Your task to perform on an android device: Go to calendar. Show me events next week Image 0: 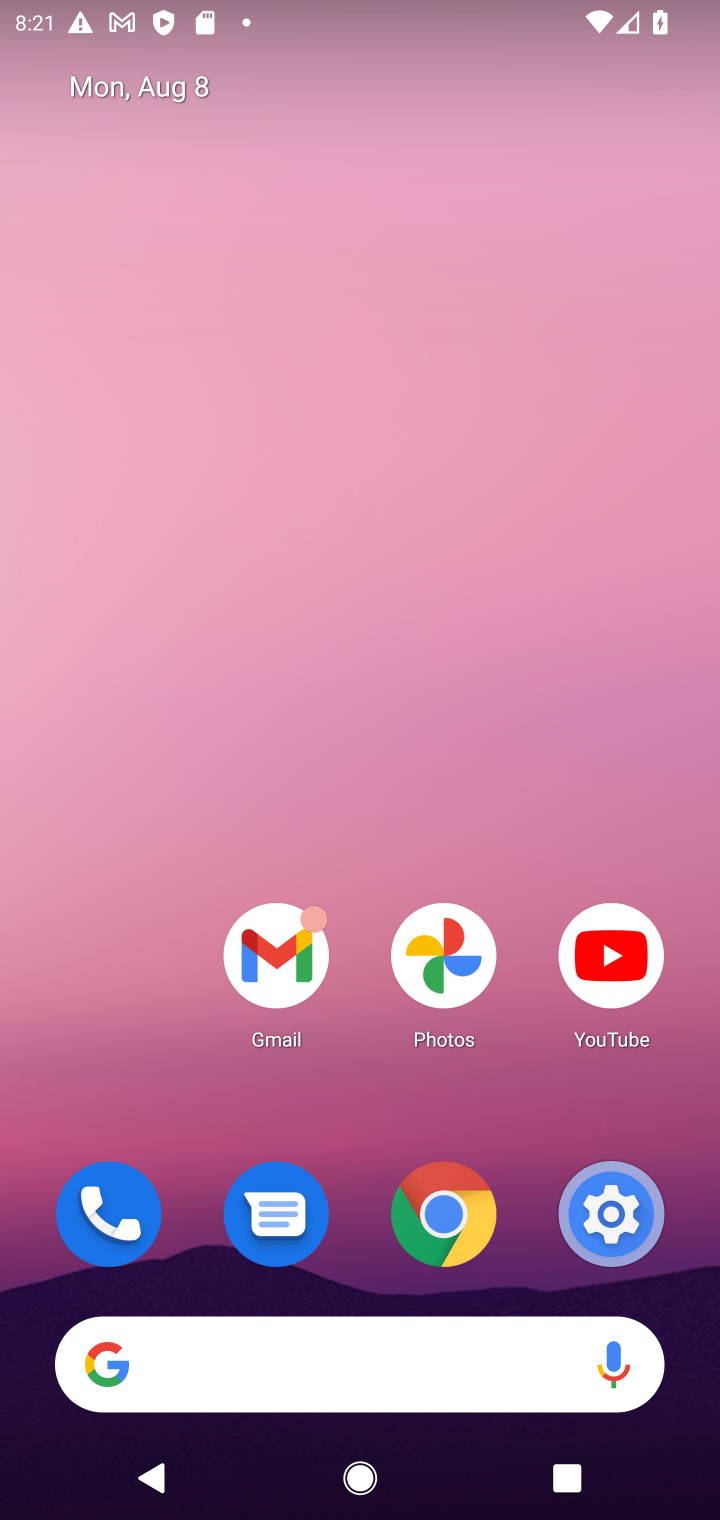
Step 0: drag from (161, 1112) to (173, 466)
Your task to perform on an android device: Go to calendar. Show me events next week Image 1: 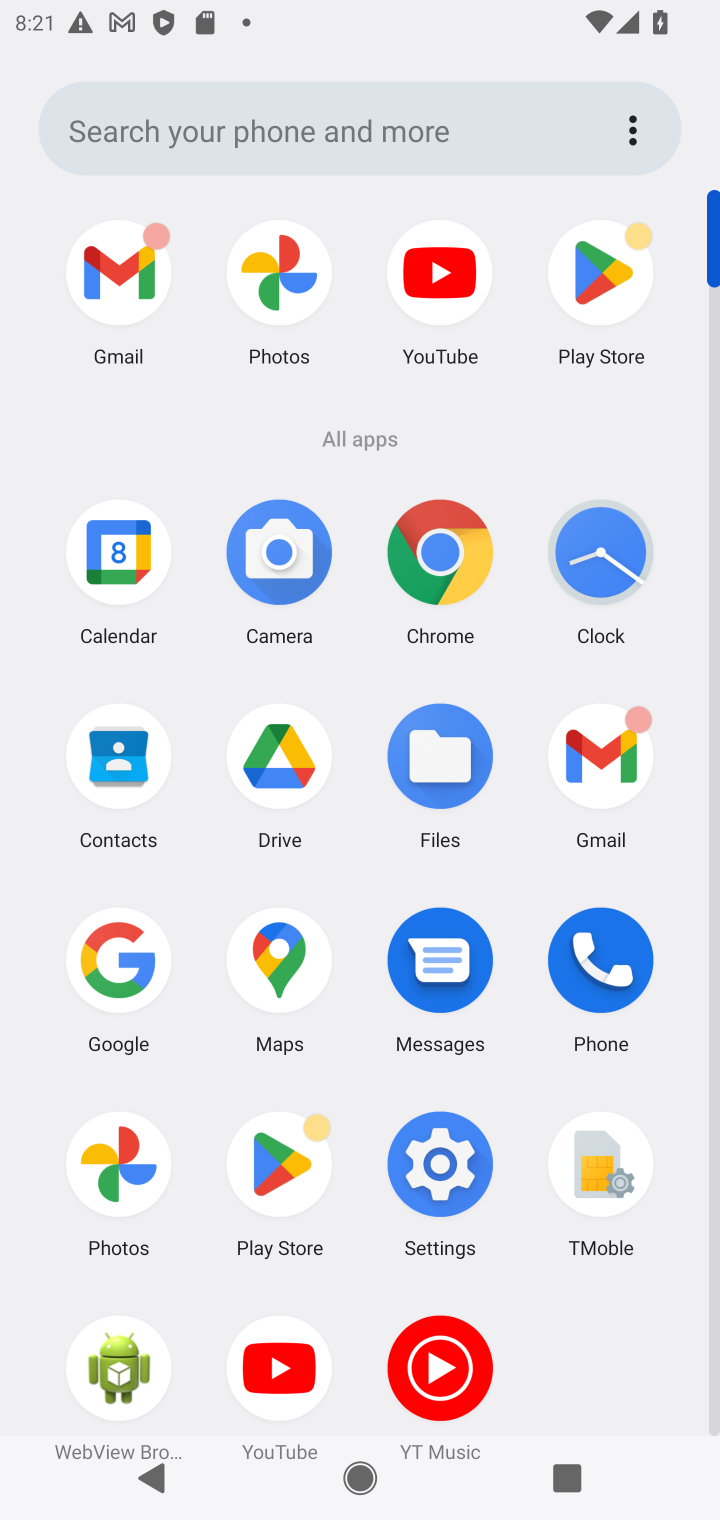
Step 1: click (122, 547)
Your task to perform on an android device: Go to calendar. Show me events next week Image 2: 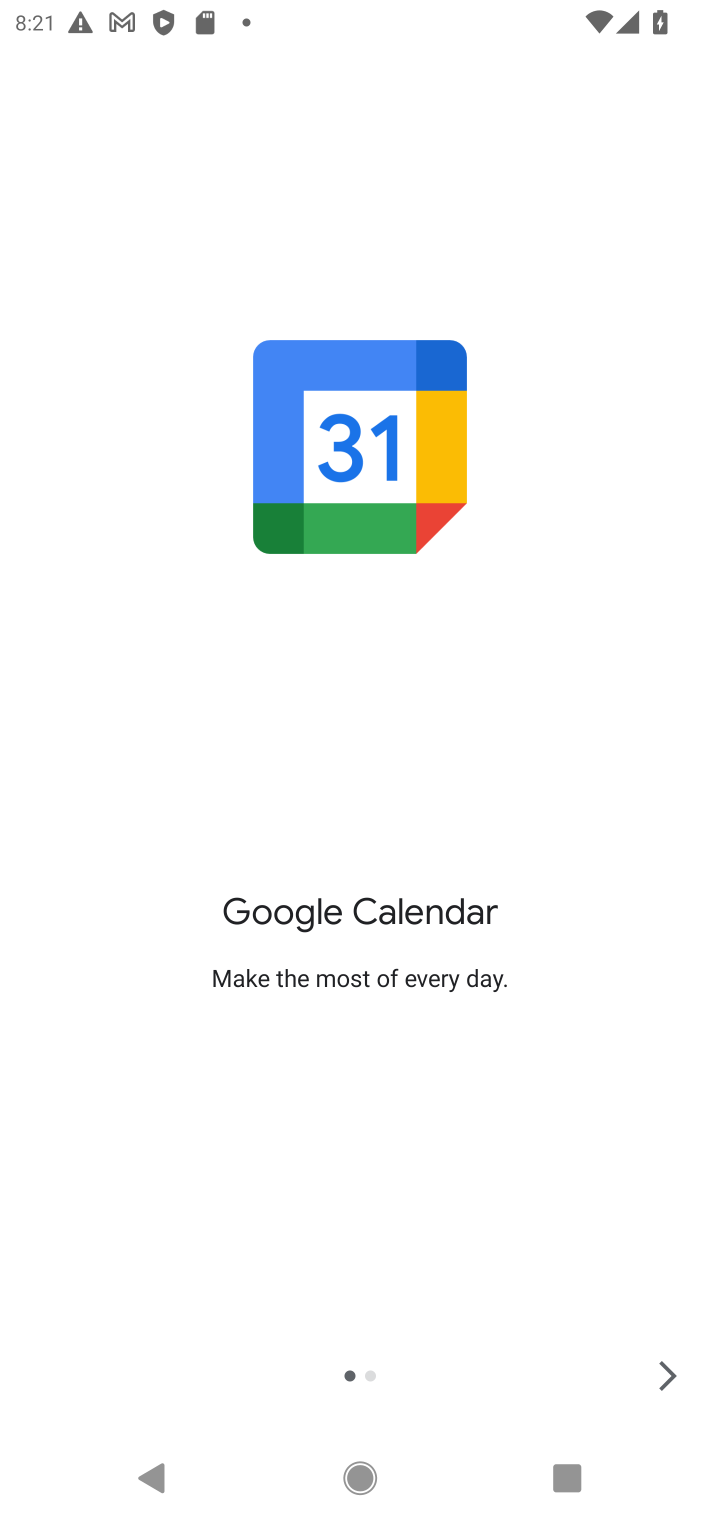
Step 2: click (673, 1382)
Your task to perform on an android device: Go to calendar. Show me events next week Image 3: 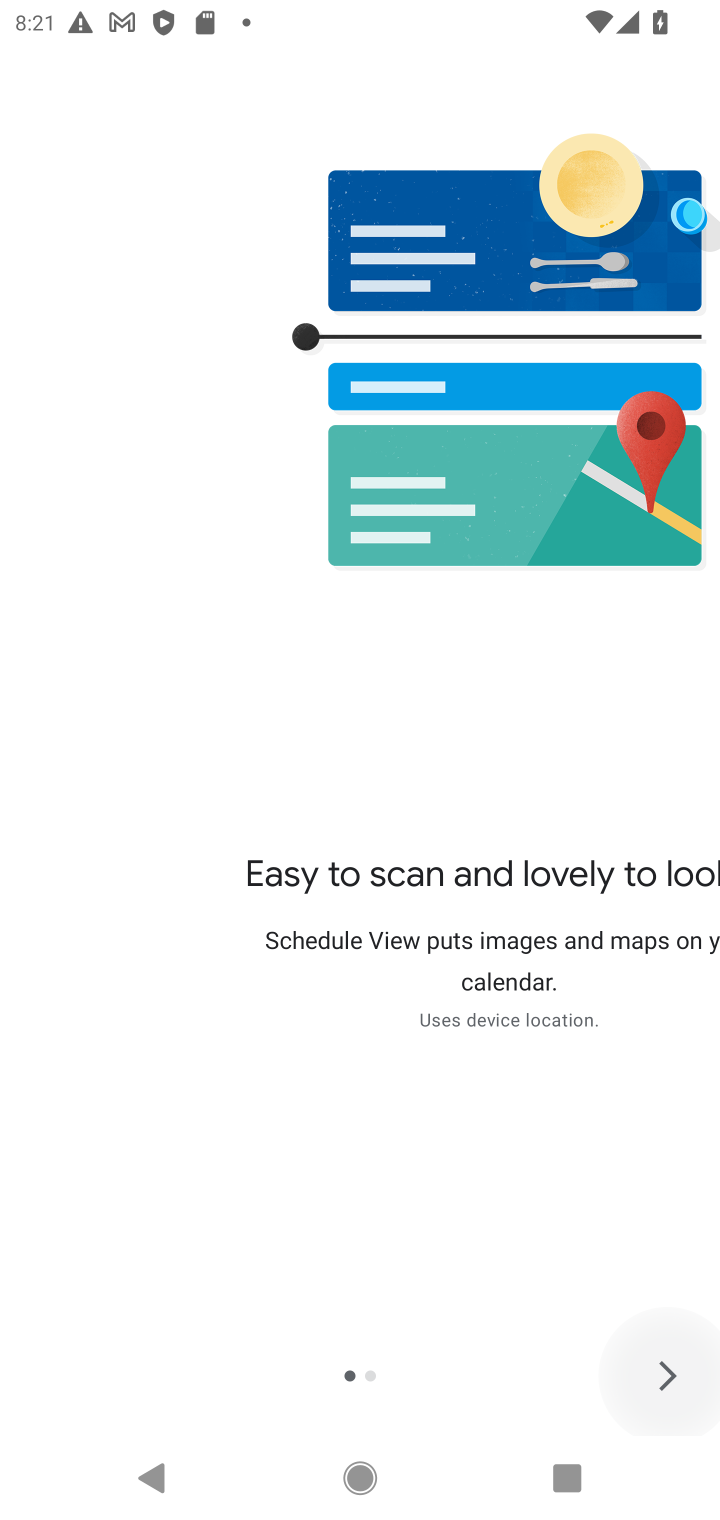
Step 3: click (673, 1382)
Your task to perform on an android device: Go to calendar. Show me events next week Image 4: 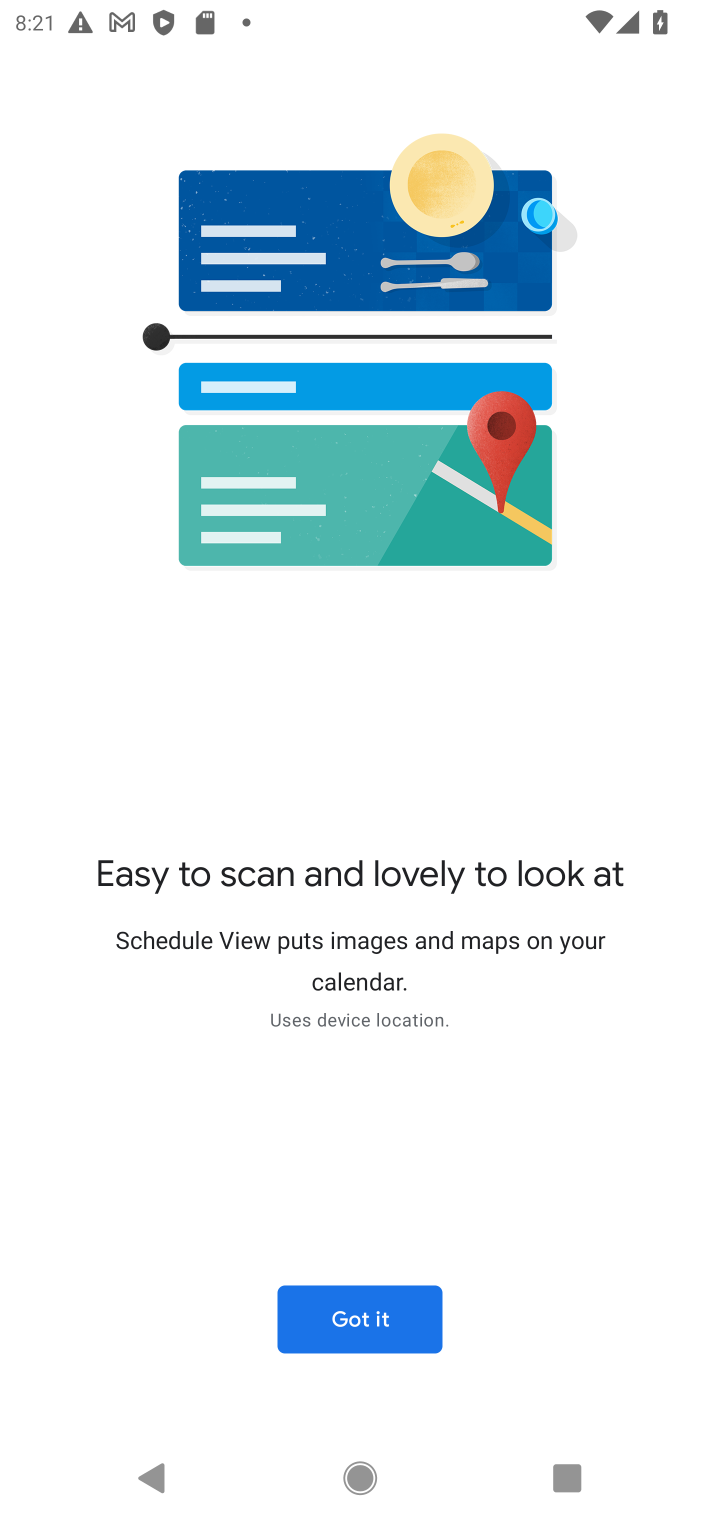
Step 4: click (323, 1319)
Your task to perform on an android device: Go to calendar. Show me events next week Image 5: 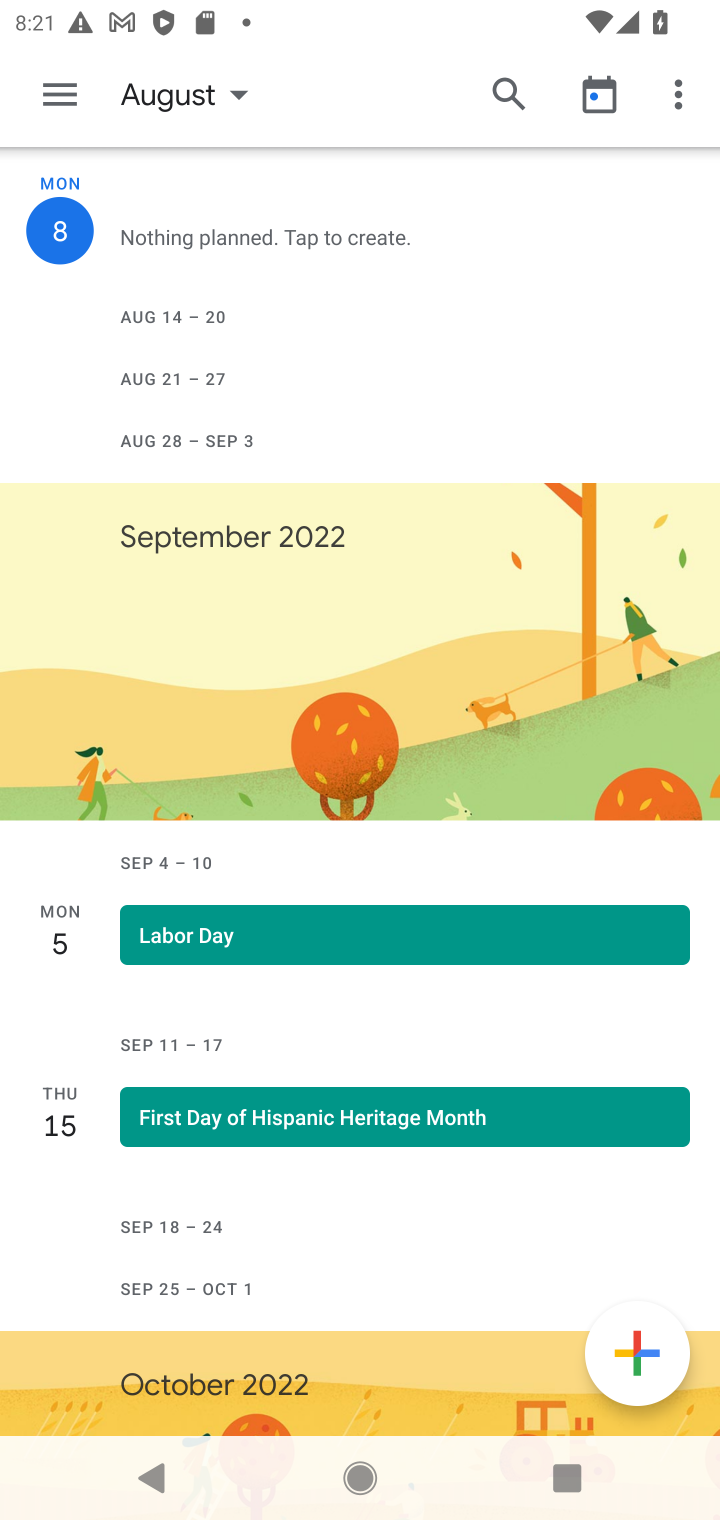
Step 5: click (47, 65)
Your task to perform on an android device: Go to calendar. Show me events next week Image 6: 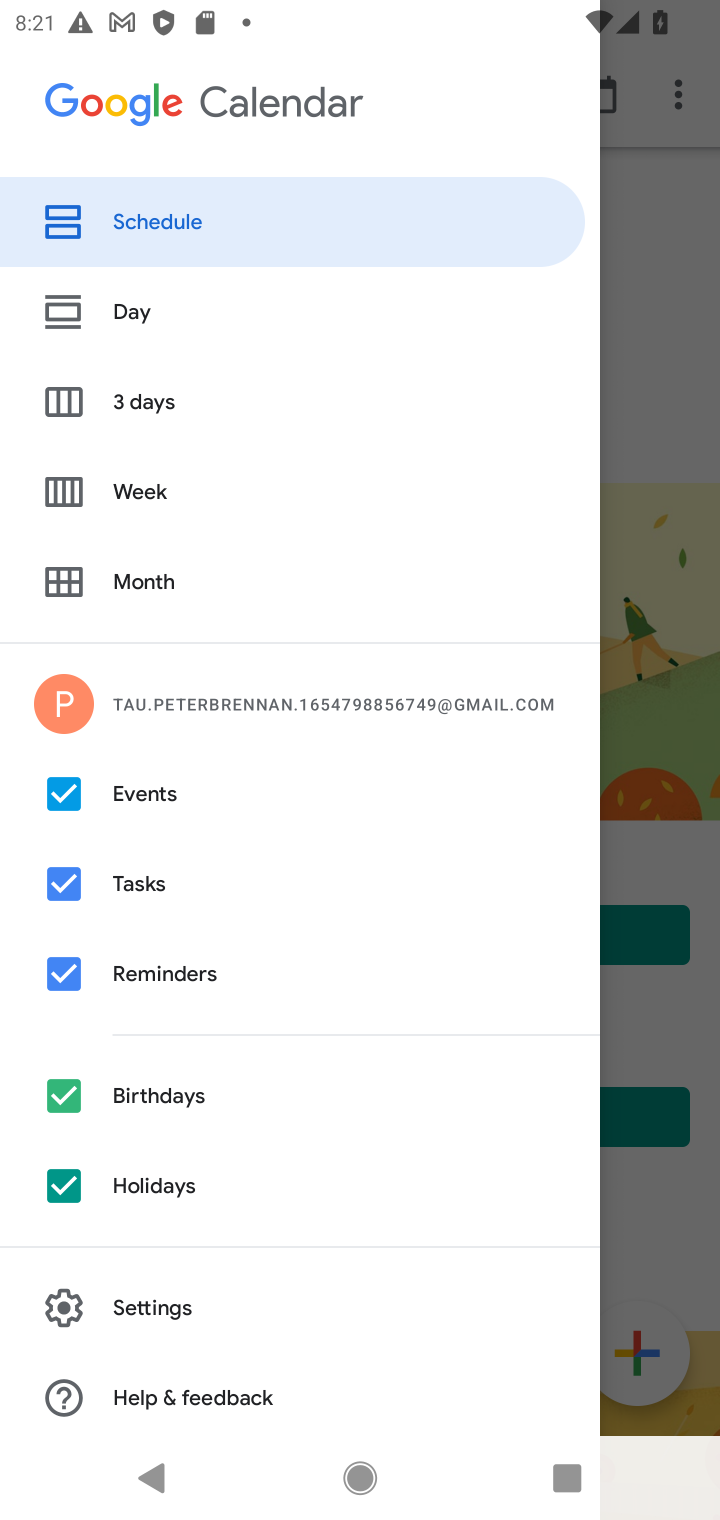
Step 6: click (170, 490)
Your task to perform on an android device: Go to calendar. Show me events next week Image 7: 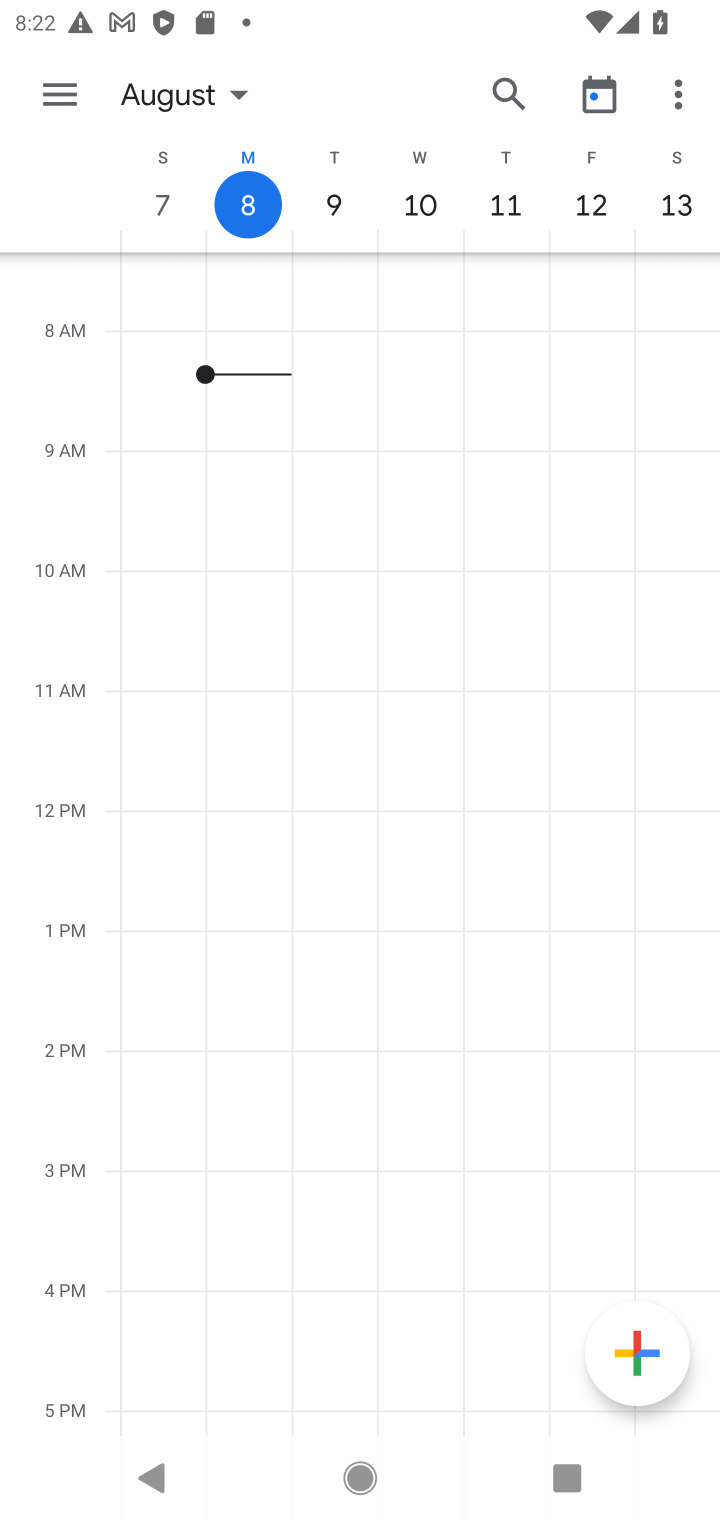
Step 7: drag from (637, 166) to (315, 141)
Your task to perform on an android device: Go to calendar. Show me events next week Image 8: 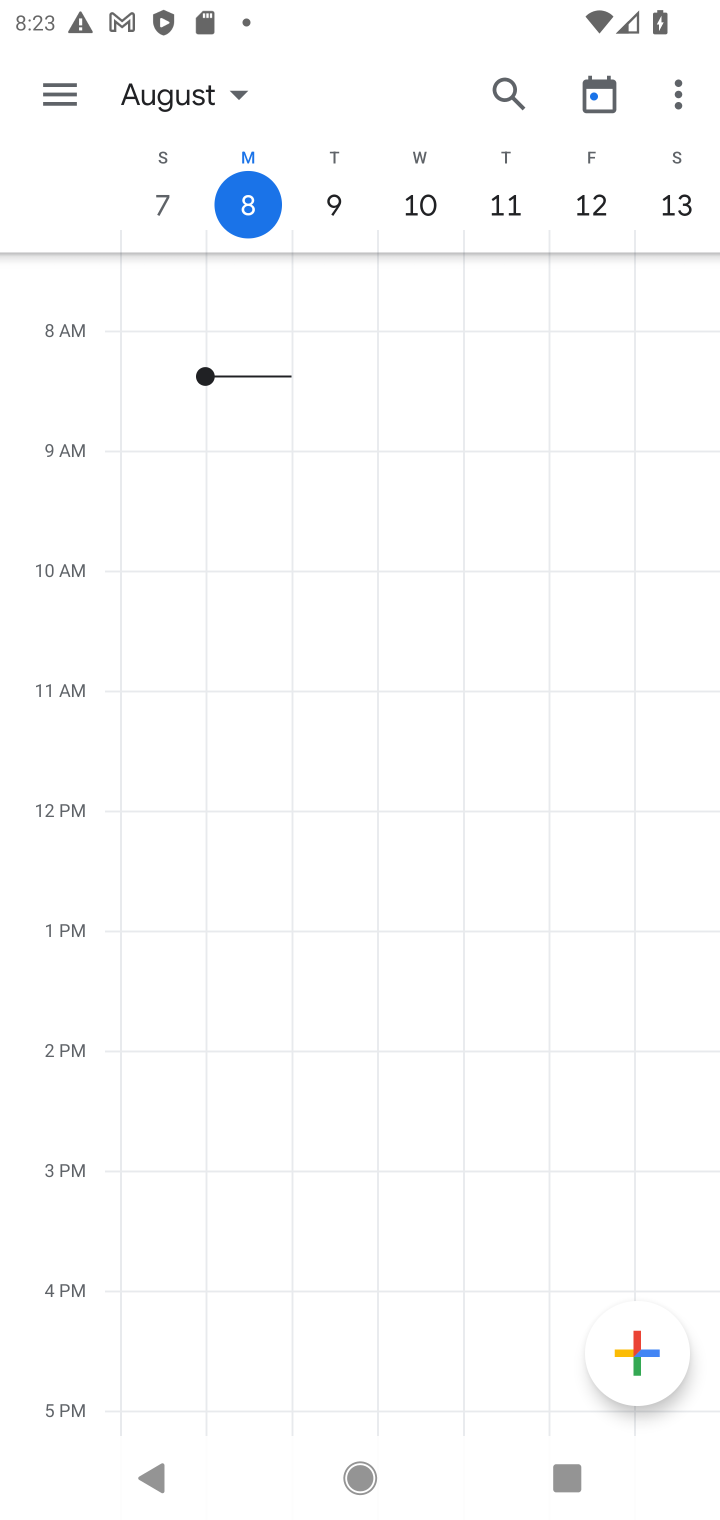
Step 8: click (343, 1460)
Your task to perform on an android device: Go to calendar. Show me events next week Image 9: 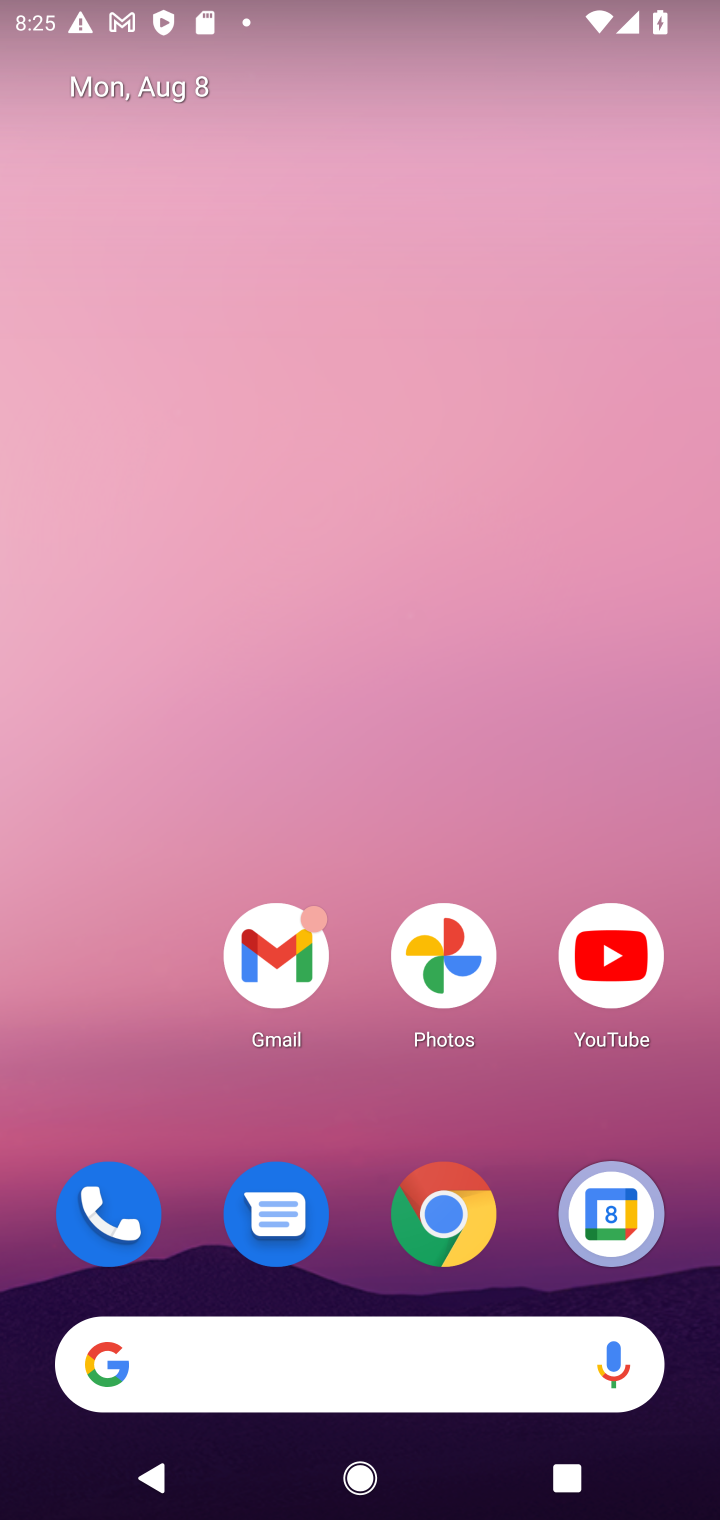
Step 9: task complete